Your task to perform on an android device: open app "NewsBreak: Local News & Alerts" (install if not already installed) and go to login screen Image 0: 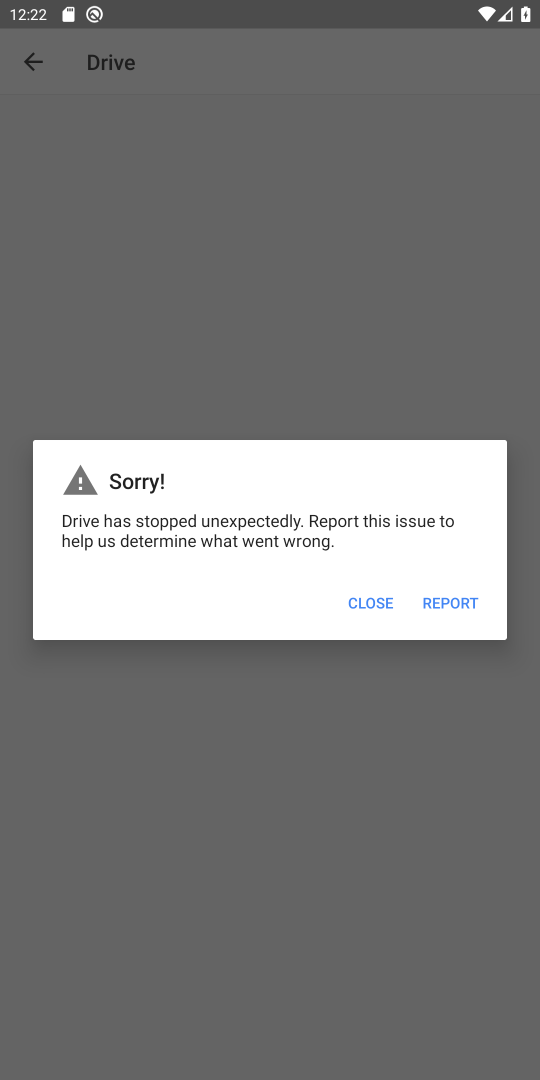
Step 0: press home button
Your task to perform on an android device: open app "NewsBreak: Local News & Alerts" (install if not already installed) and go to login screen Image 1: 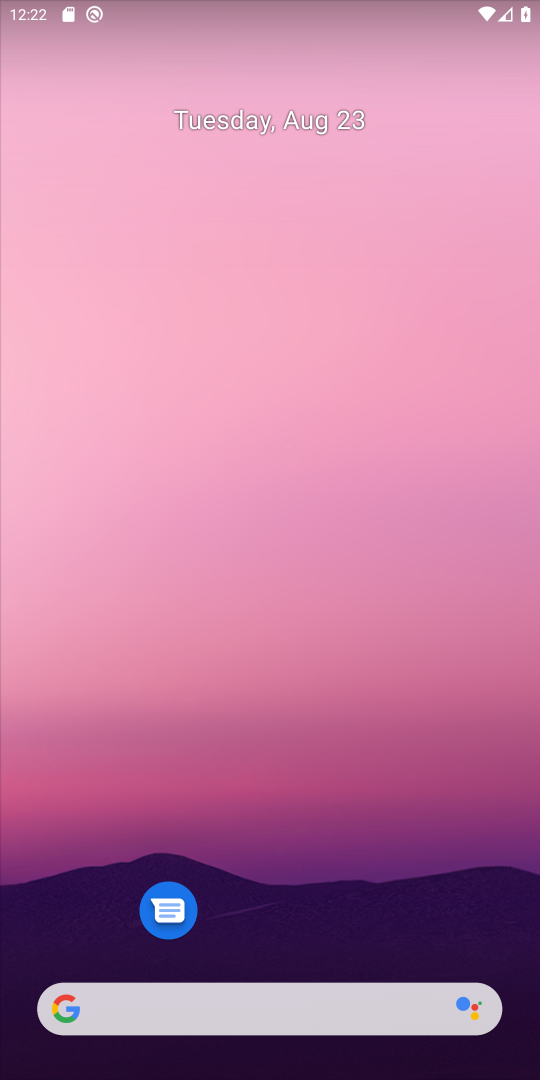
Step 1: drag from (263, 975) to (143, 69)
Your task to perform on an android device: open app "NewsBreak: Local News & Alerts" (install if not already installed) and go to login screen Image 2: 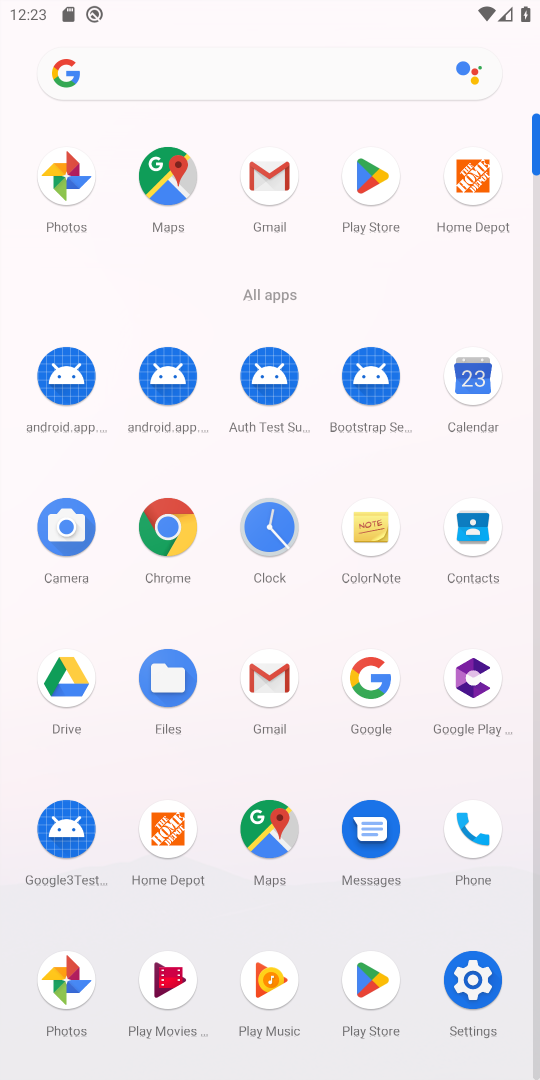
Step 2: click (362, 190)
Your task to perform on an android device: open app "NewsBreak: Local News & Alerts" (install if not already installed) and go to login screen Image 3: 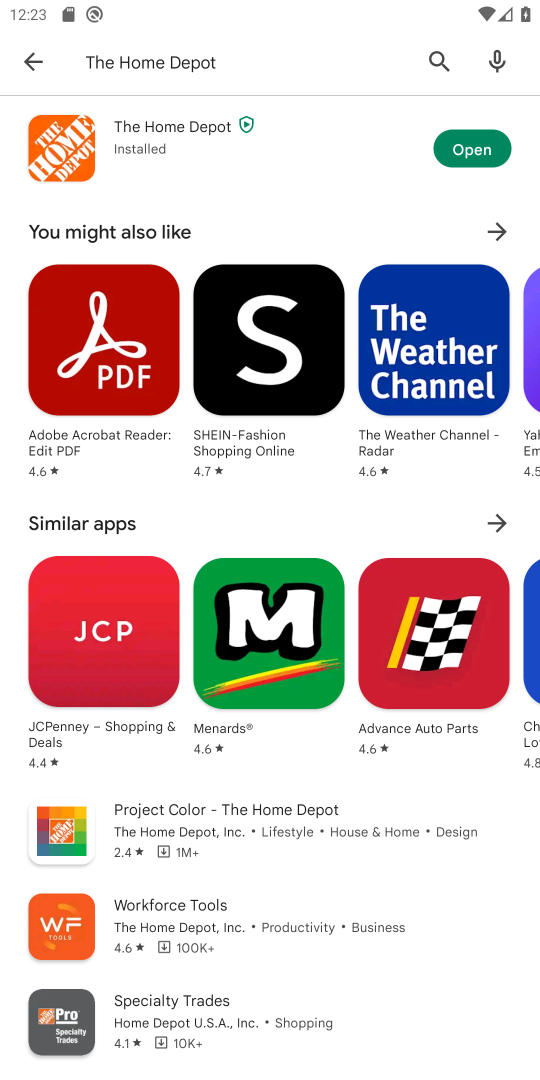
Step 3: press back button
Your task to perform on an android device: open app "NewsBreak: Local News & Alerts" (install if not already installed) and go to login screen Image 4: 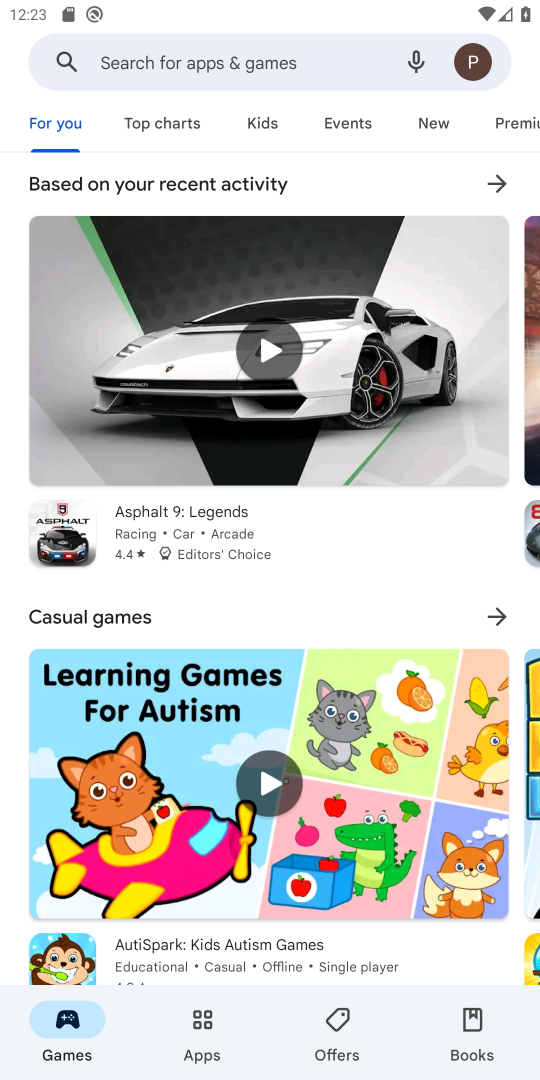
Step 4: click (288, 67)
Your task to perform on an android device: open app "NewsBreak: Local News & Alerts" (install if not already installed) and go to login screen Image 5: 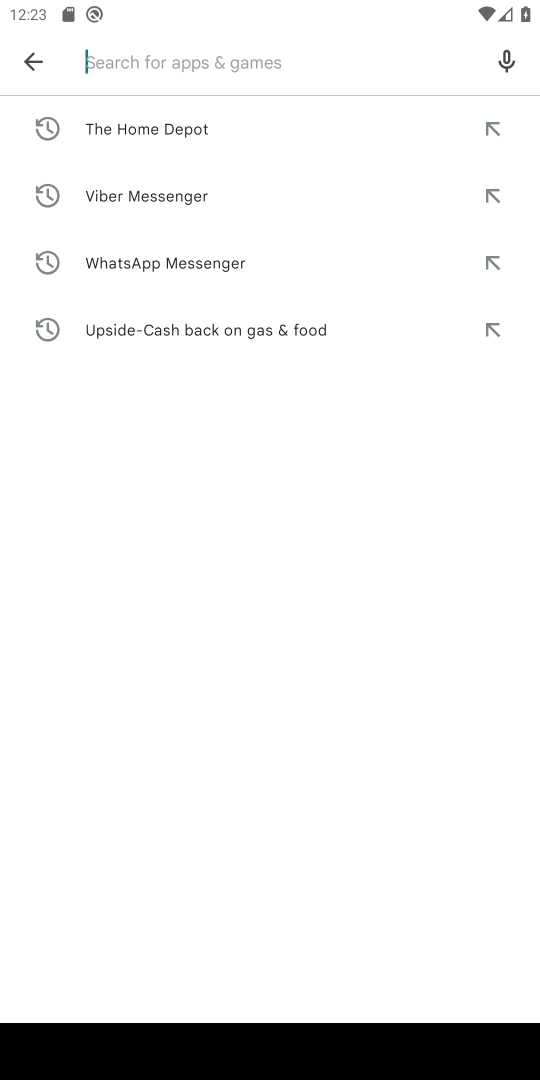
Step 5: type "NewsBreak: Local News & Alerts"
Your task to perform on an android device: open app "NewsBreak: Local News & Alerts" (install if not already installed) and go to login screen Image 6: 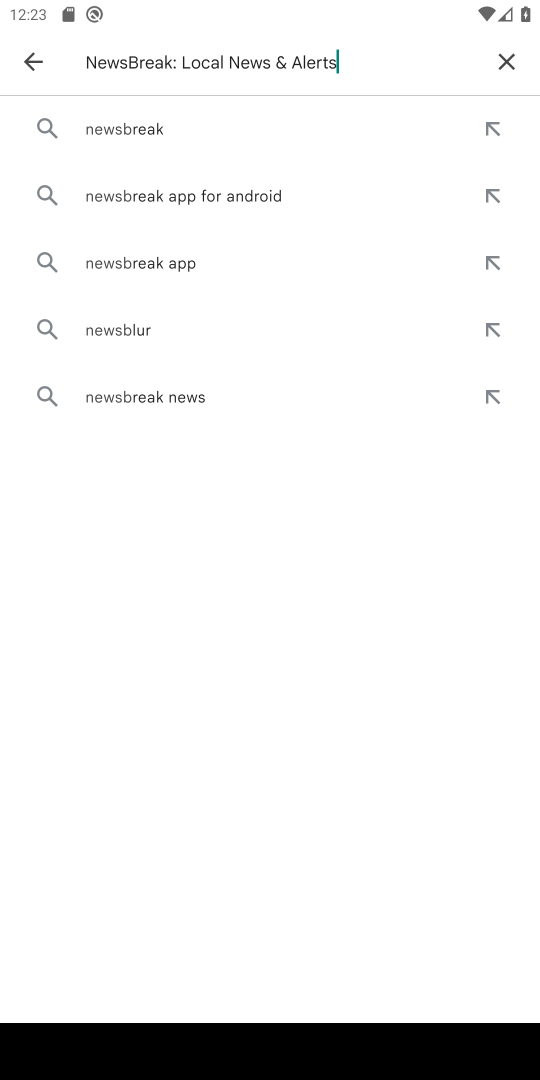
Step 6: press enter
Your task to perform on an android device: open app "NewsBreak: Local News & Alerts" (install if not already installed) and go to login screen Image 7: 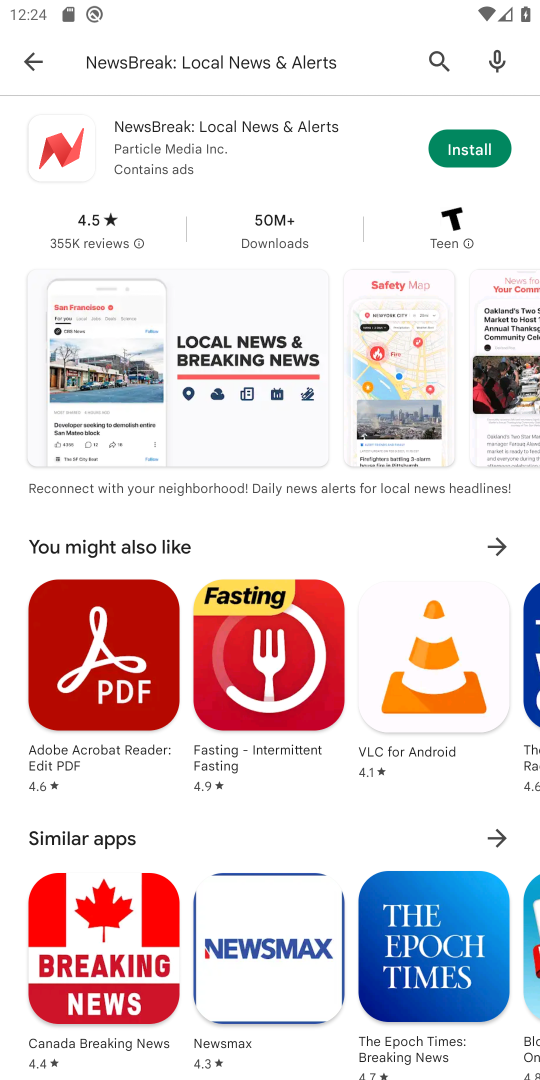
Step 7: click (472, 155)
Your task to perform on an android device: open app "NewsBreak: Local News & Alerts" (install if not already installed) and go to login screen Image 8: 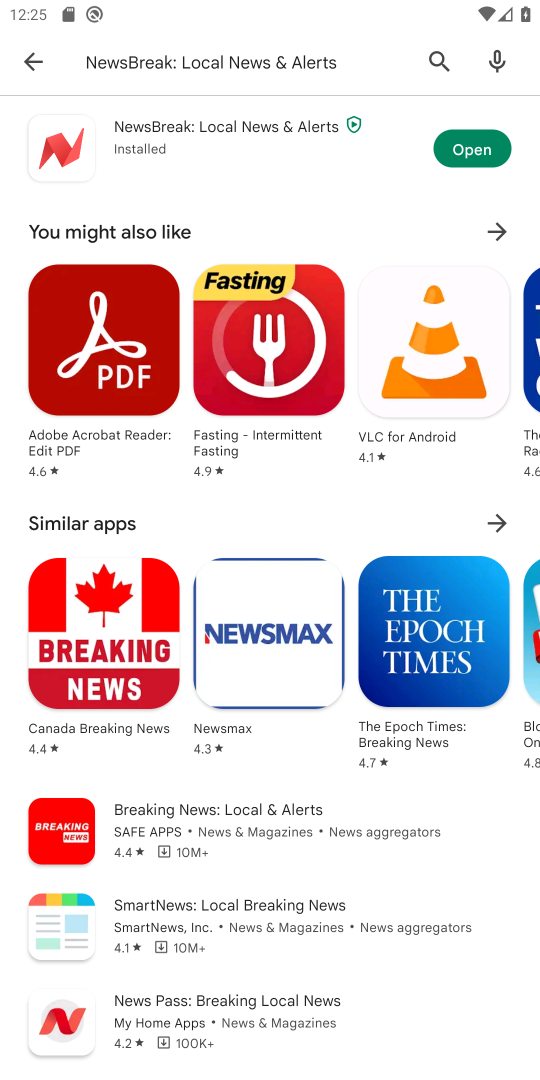
Step 8: click (470, 146)
Your task to perform on an android device: open app "NewsBreak: Local News & Alerts" (install if not already installed) and go to login screen Image 9: 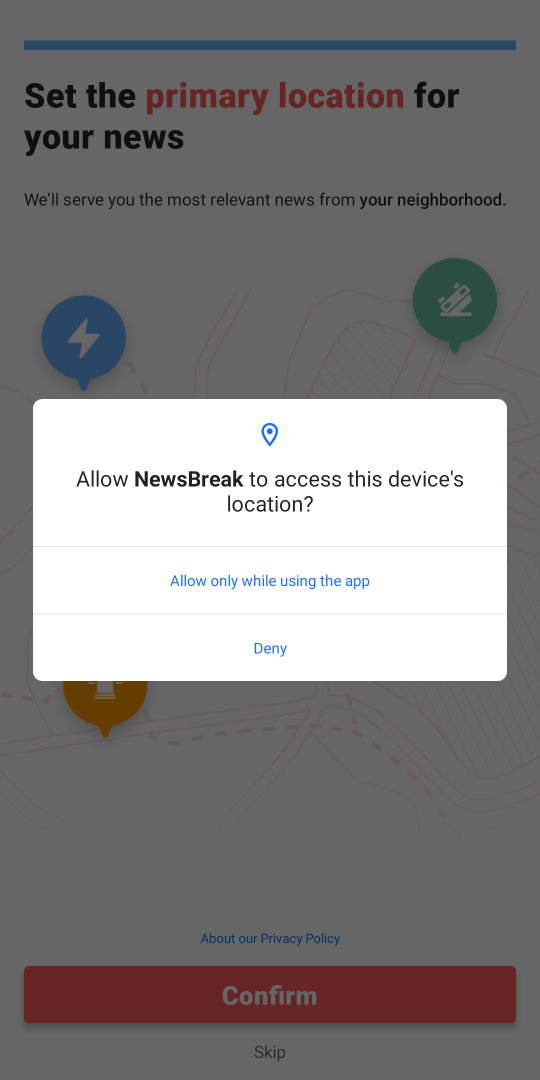
Step 9: click (253, 593)
Your task to perform on an android device: open app "NewsBreak: Local News & Alerts" (install if not already installed) and go to login screen Image 10: 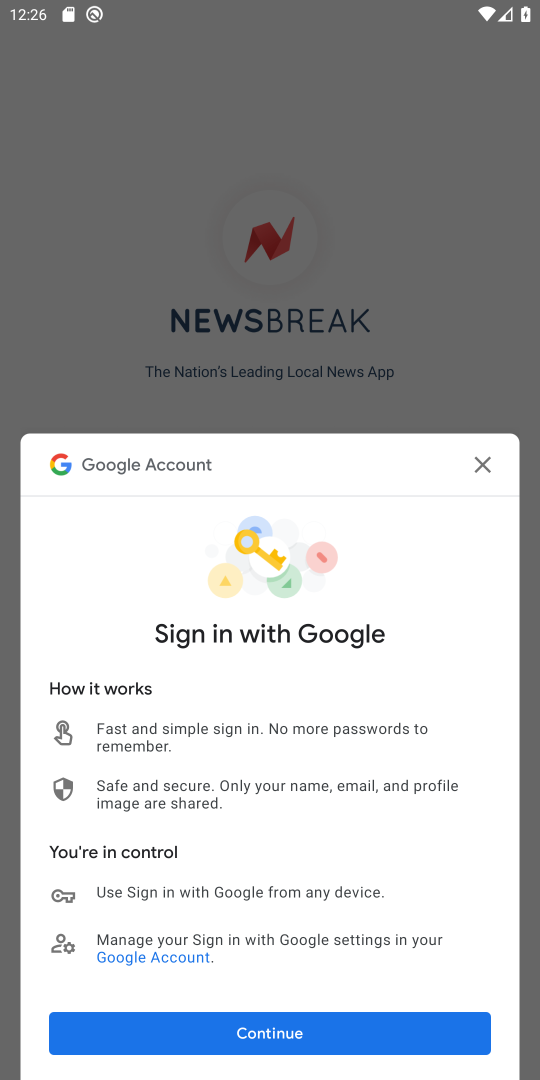
Step 10: task complete